Your task to perform on an android device: toggle translation in the chrome app Image 0: 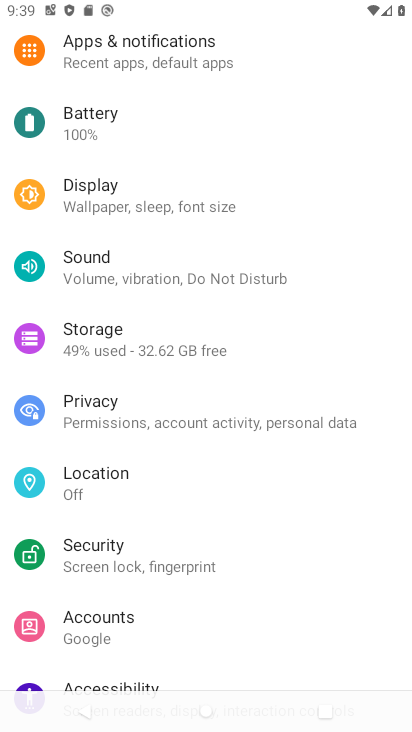
Step 0: press home button
Your task to perform on an android device: toggle translation in the chrome app Image 1: 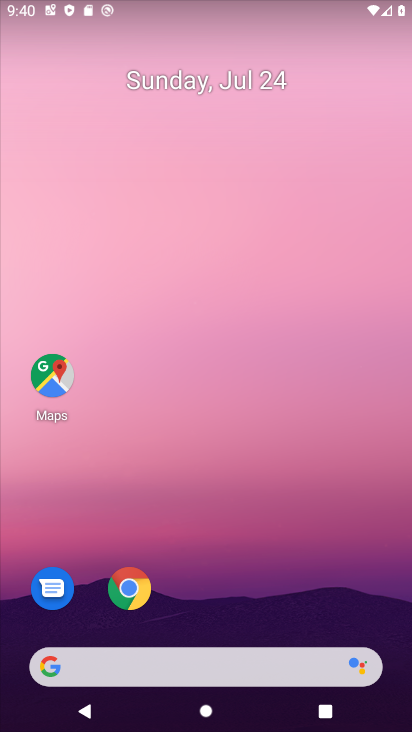
Step 1: click (128, 587)
Your task to perform on an android device: toggle translation in the chrome app Image 2: 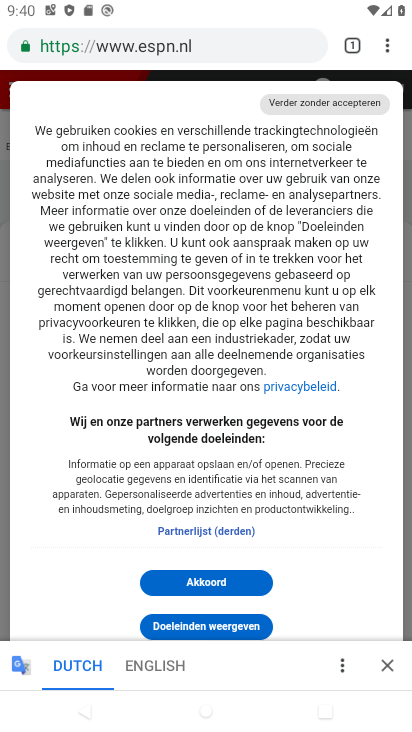
Step 2: click (387, 48)
Your task to perform on an android device: toggle translation in the chrome app Image 3: 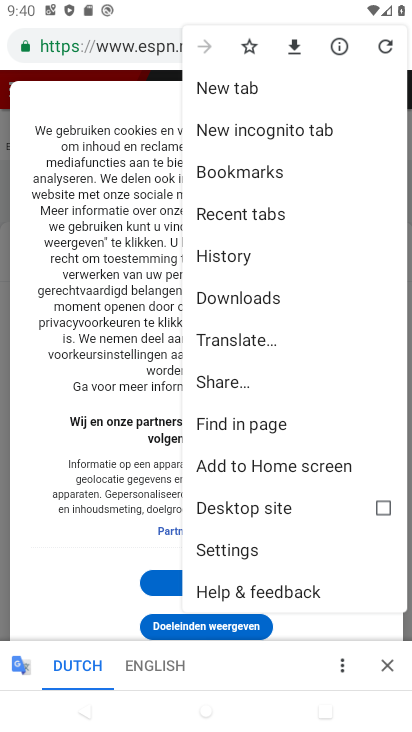
Step 3: click (225, 548)
Your task to perform on an android device: toggle translation in the chrome app Image 4: 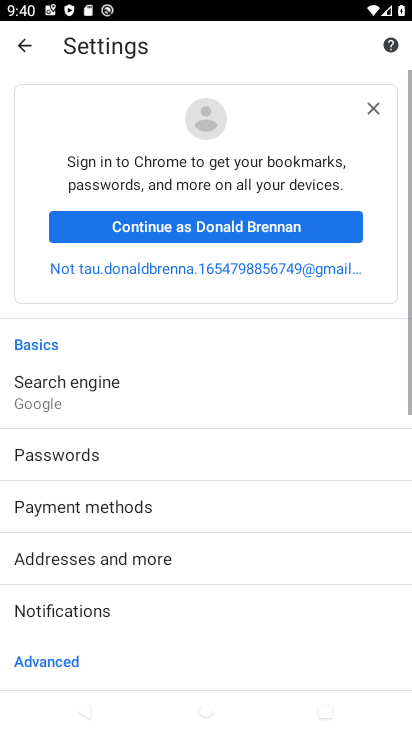
Step 4: drag from (191, 579) to (207, 259)
Your task to perform on an android device: toggle translation in the chrome app Image 5: 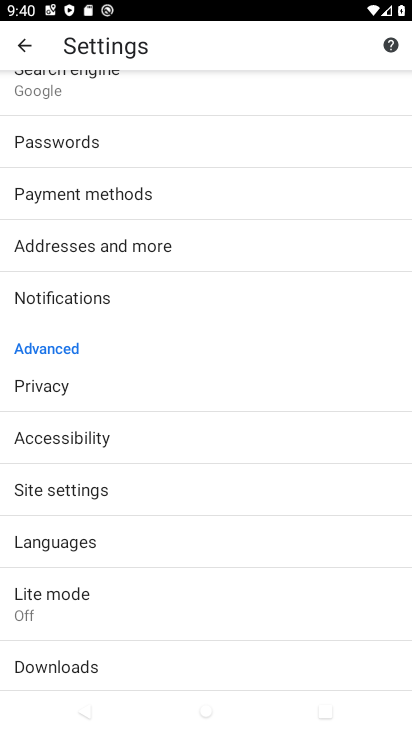
Step 5: click (87, 541)
Your task to perform on an android device: toggle translation in the chrome app Image 6: 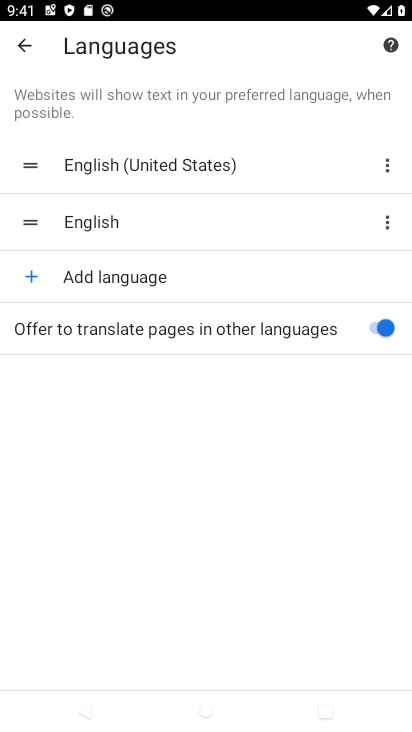
Step 6: click (396, 328)
Your task to perform on an android device: toggle translation in the chrome app Image 7: 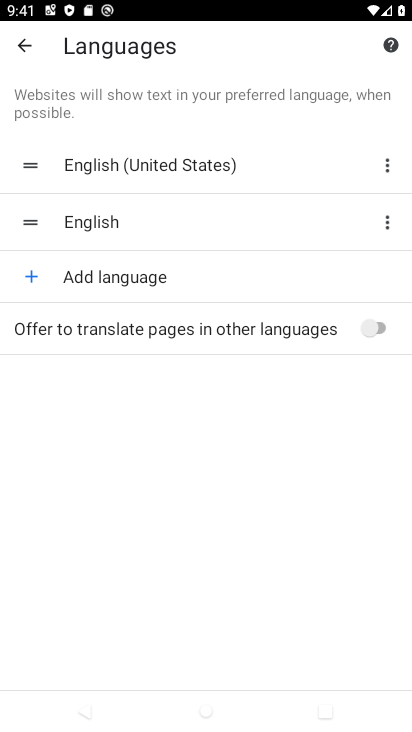
Step 7: task complete